Your task to perform on an android device: choose inbox layout in the gmail app Image 0: 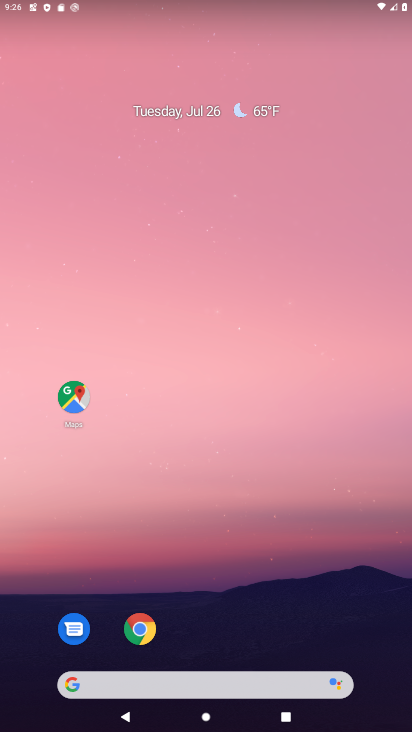
Step 0: drag from (324, 620) to (279, 51)
Your task to perform on an android device: choose inbox layout in the gmail app Image 1: 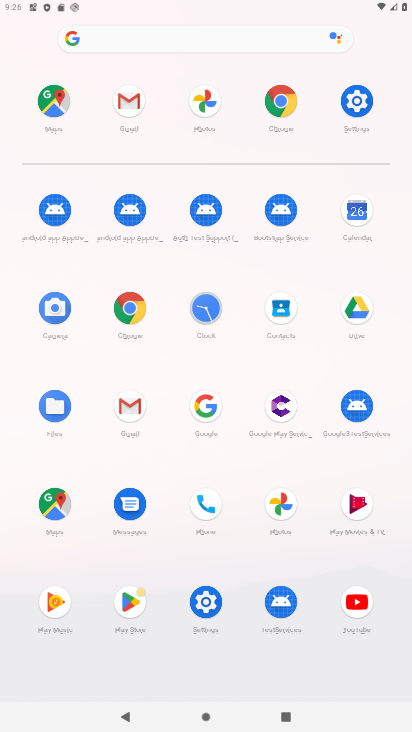
Step 1: click (127, 103)
Your task to perform on an android device: choose inbox layout in the gmail app Image 2: 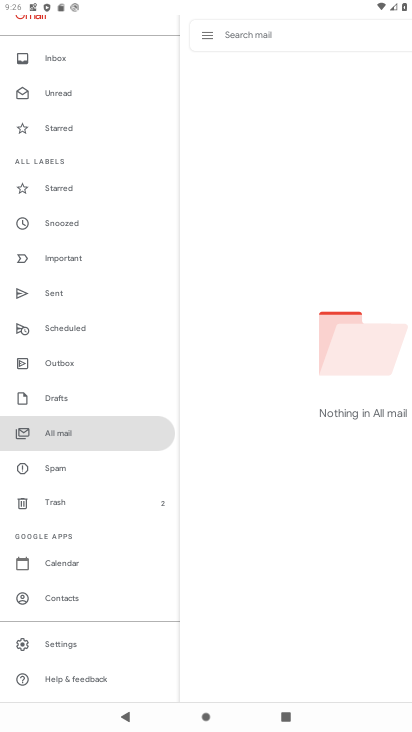
Step 2: click (77, 639)
Your task to perform on an android device: choose inbox layout in the gmail app Image 3: 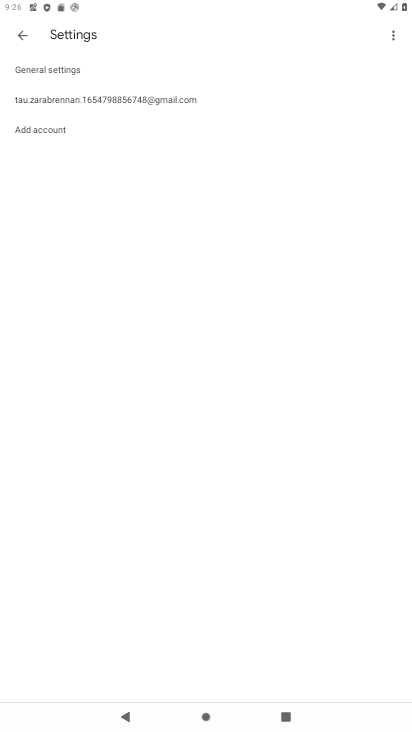
Step 3: click (98, 106)
Your task to perform on an android device: choose inbox layout in the gmail app Image 4: 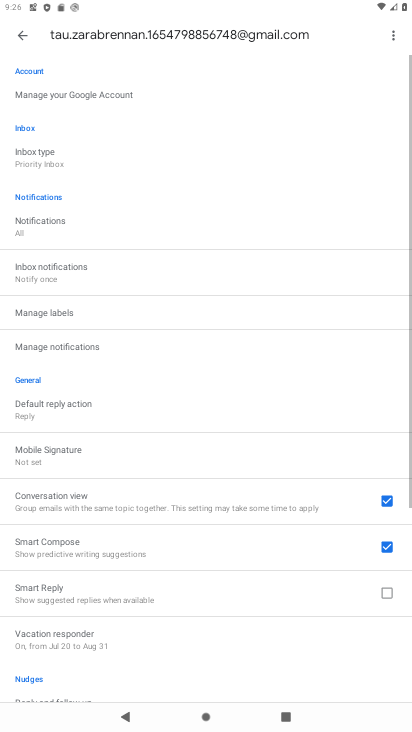
Step 4: click (62, 163)
Your task to perform on an android device: choose inbox layout in the gmail app Image 5: 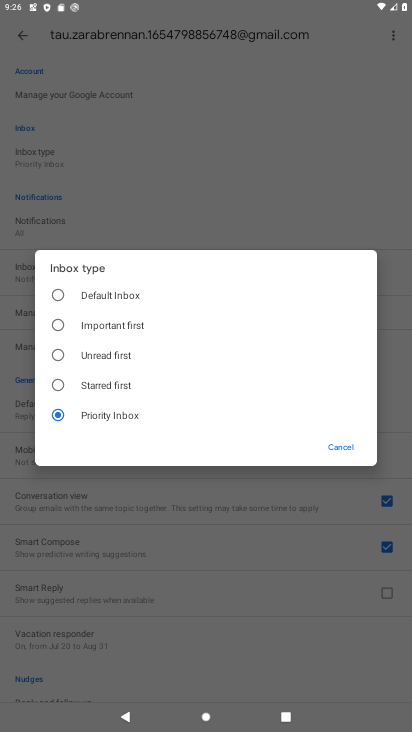
Step 5: task complete